Your task to perform on an android device: change notification settings in the gmail app Image 0: 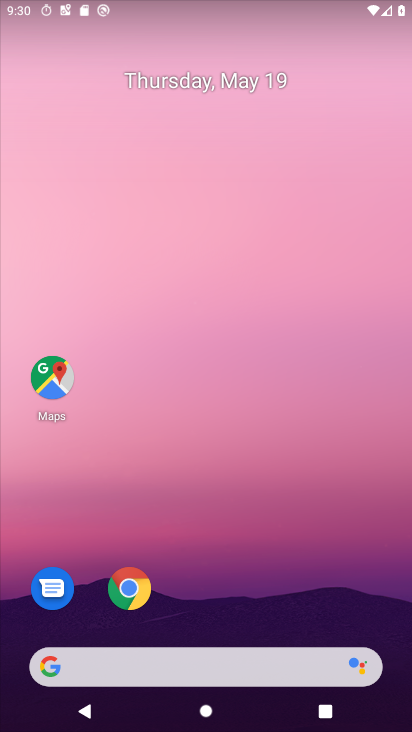
Step 0: press home button
Your task to perform on an android device: change notification settings in the gmail app Image 1: 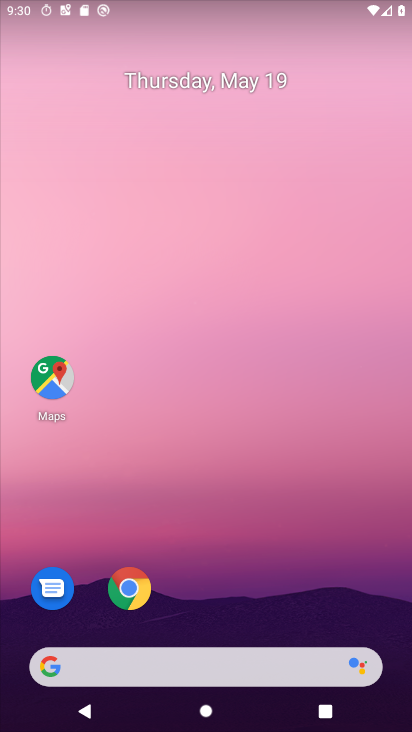
Step 1: drag from (153, 667) to (311, 134)
Your task to perform on an android device: change notification settings in the gmail app Image 2: 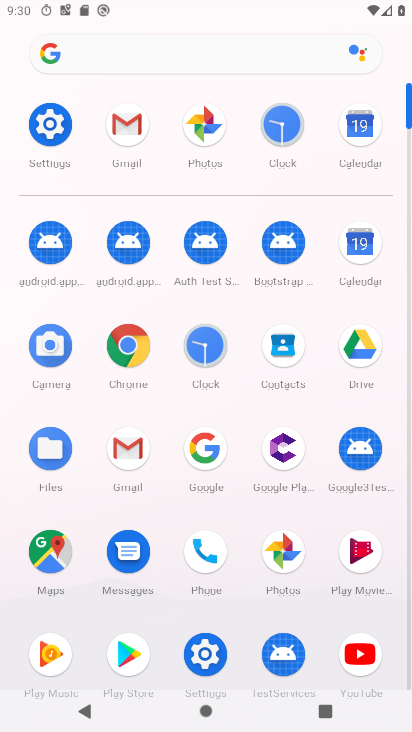
Step 2: click (119, 135)
Your task to perform on an android device: change notification settings in the gmail app Image 3: 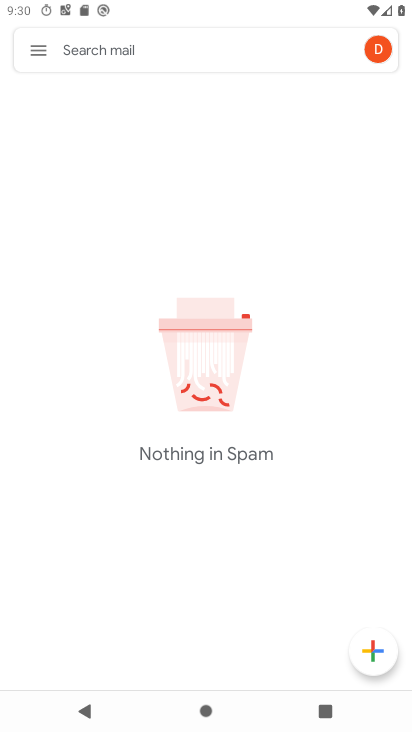
Step 3: click (38, 44)
Your task to perform on an android device: change notification settings in the gmail app Image 4: 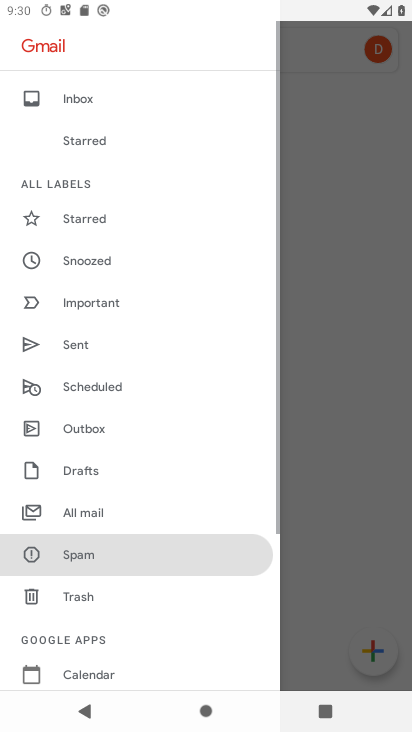
Step 4: drag from (164, 609) to (250, 211)
Your task to perform on an android device: change notification settings in the gmail app Image 5: 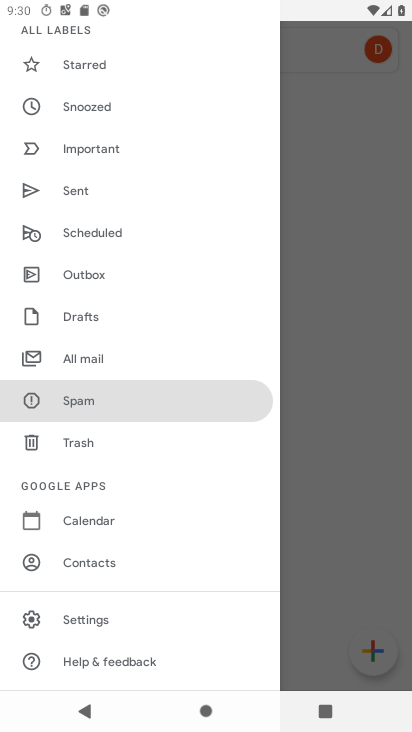
Step 5: click (101, 619)
Your task to perform on an android device: change notification settings in the gmail app Image 6: 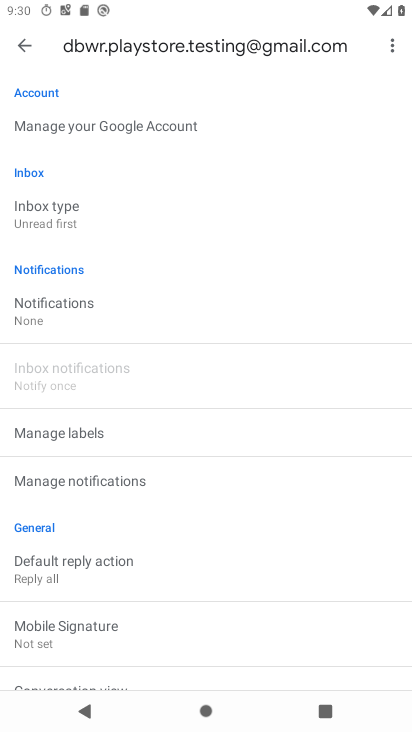
Step 6: click (52, 311)
Your task to perform on an android device: change notification settings in the gmail app Image 7: 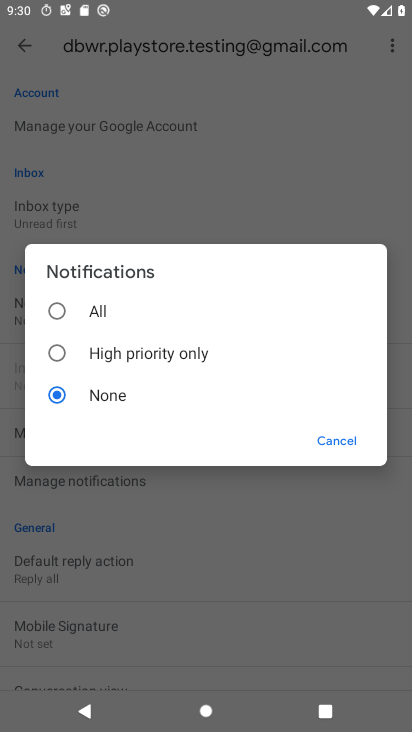
Step 7: click (54, 310)
Your task to perform on an android device: change notification settings in the gmail app Image 8: 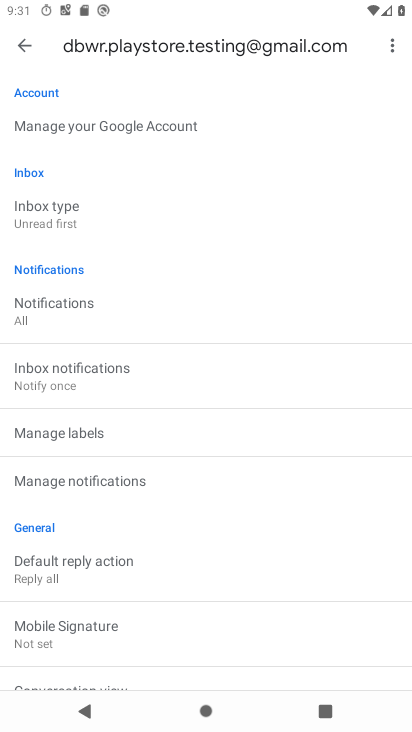
Step 8: task complete